Your task to perform on an android device: change the clock display to digital Image 0: 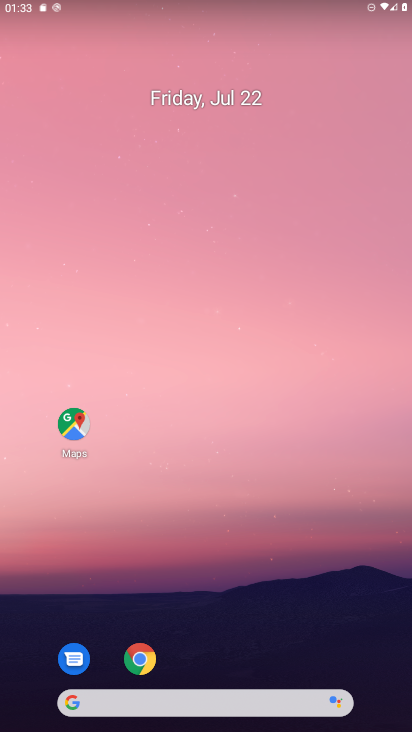
Step 0: drag from (197, 704) to (132, 65)
Your task to perform on an android device: change the clock display to digital Image 1: 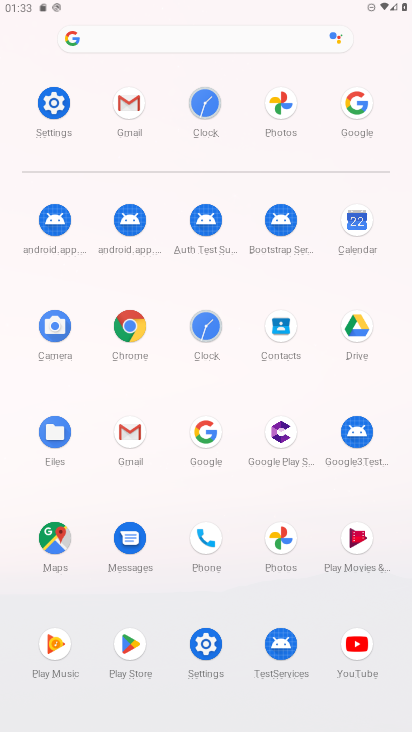
Step 1: click (208, 104)
Your task to perform on an android device: change the clock display to digital Image 2: 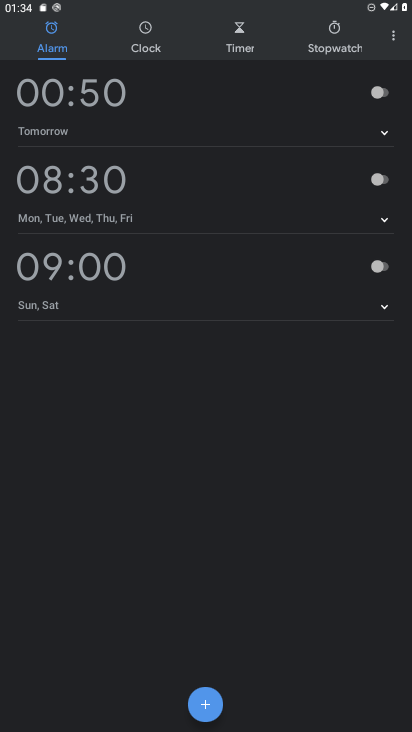
Step 2: click (396, 35)
Your task to perform on an android device: change the clock display to digital Image 3: 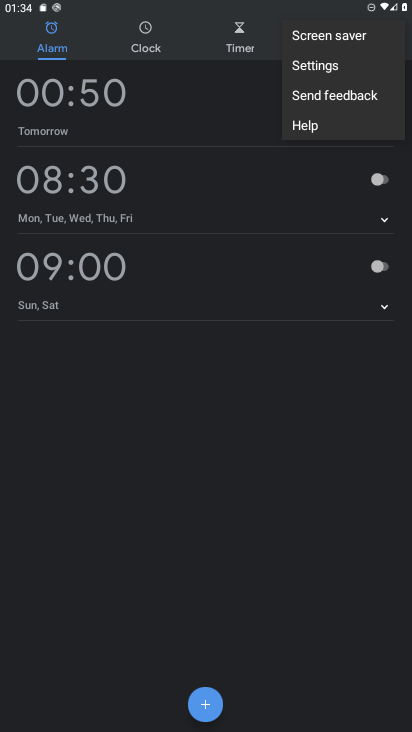
Step 3: click (327, 73)
Your task to perform on an android device: change the clock display to digital Image 4: 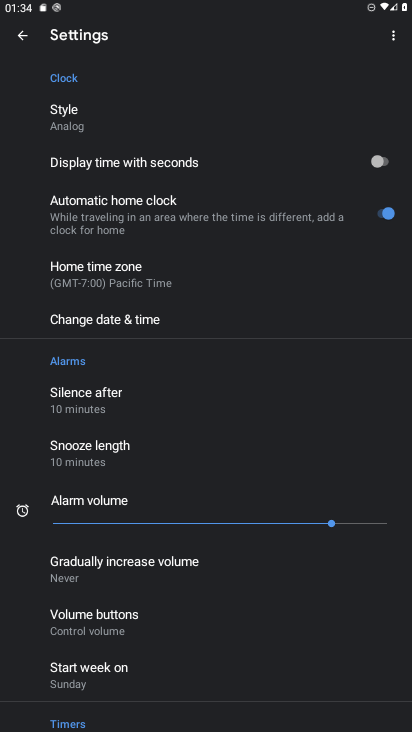
Step 4: click (71, 120)
Your task to perform on an android device: change the clock display to digital Image 5: 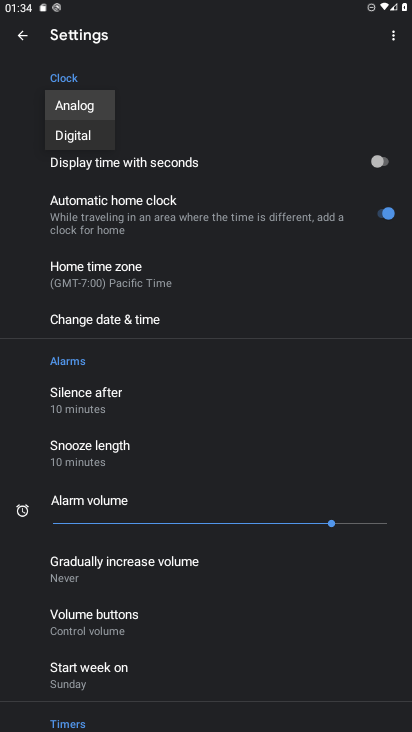
Step 5: click (82, 139)
Your task to perform on an android device: change the clock display to digital Image 6: 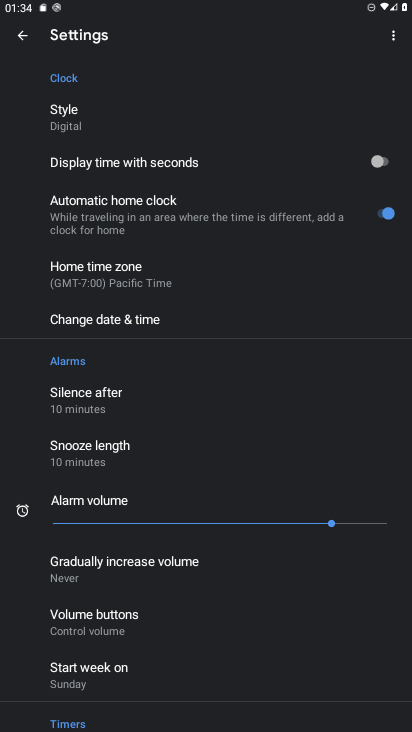
Step 6: task complete